Your task to perform on an android device: turn notification dots on Image 0: 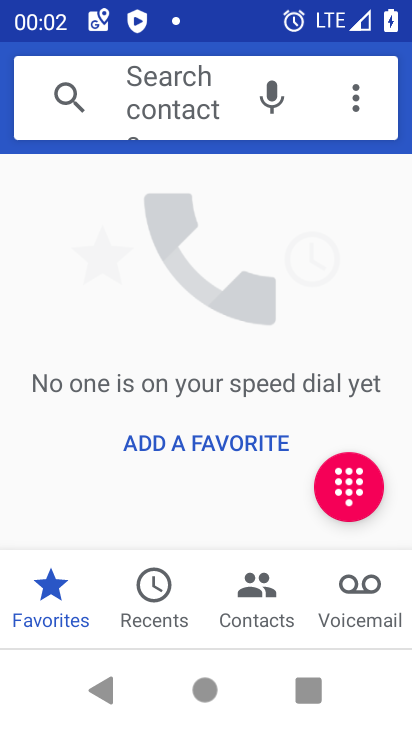
Step 0: press home button
Your task to perform on an android device: turn notification dots on Image 1: 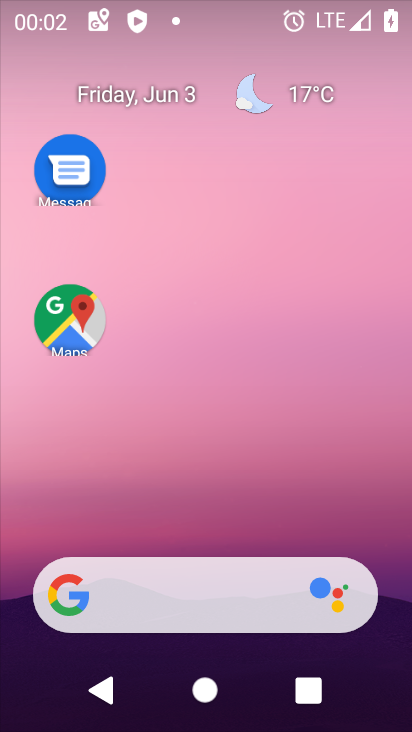
Step 1: drag from (252, 522) to (395, 1)
Your task to perform on an android device: turn notification dots on Image 2: 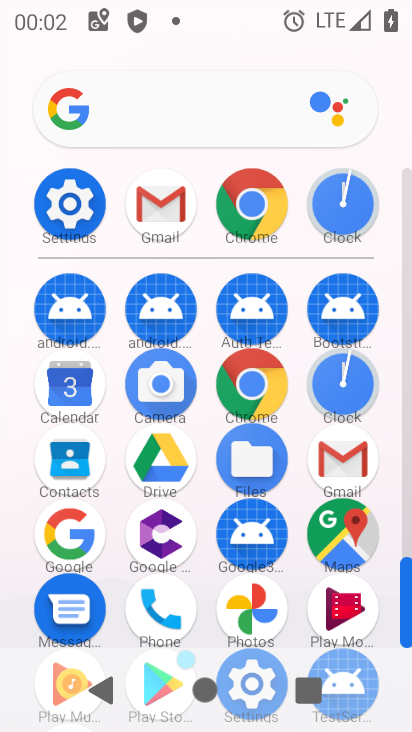
Step 2: drag from (409, 610) to (350, 698)
Your task to perform on an android device: turn notification dots on Image 3: 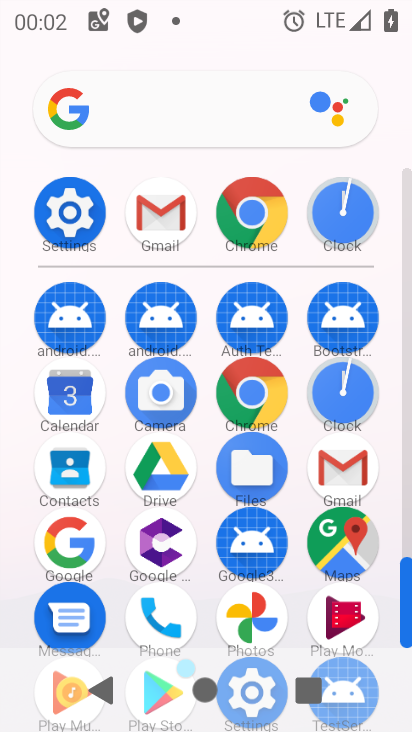
Step 3: drag from (350, 698) to (349, 304)
Your task to perform on an android device: turn notification dots on Image 4: 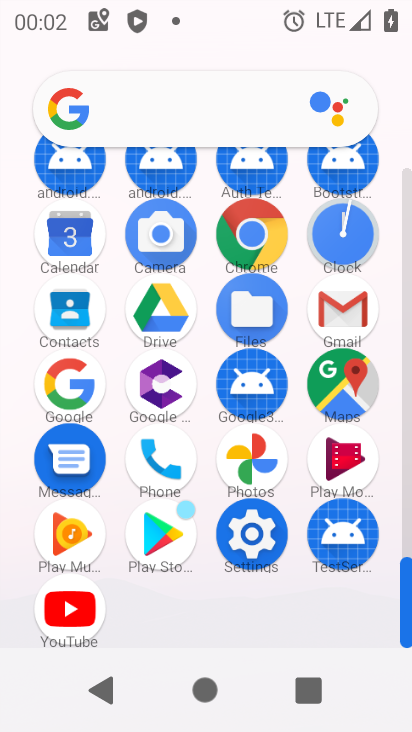
Step 4: click (228, 546)
Your task to perform on an android device: turn notification dots on Image 5: 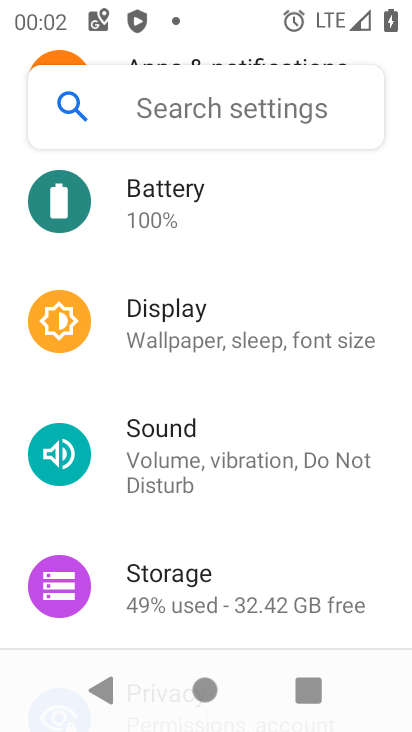
Step 5: drag from (140, 464) to (255, 159)
Your task to perform on an android device: turn notification dots on Image 6: 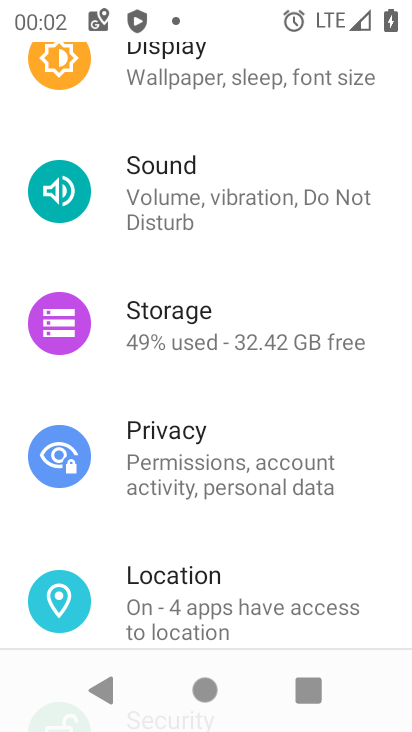
Step 6: drag from (265, 477) to (362, 193)
Your task to perform on an android device: turn notification dots on Image 7: 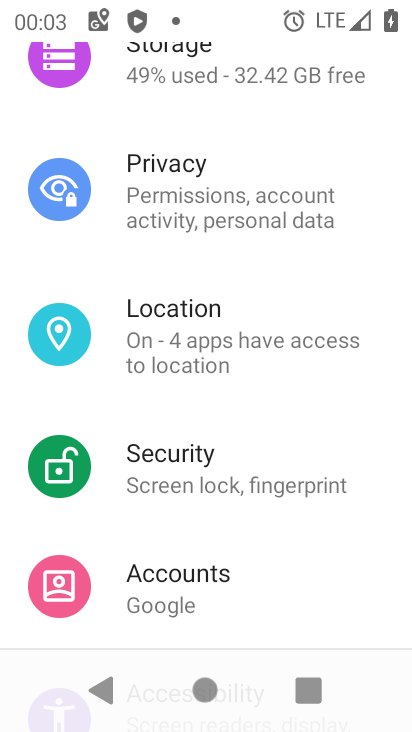
Step 7: drag from (235, 184) to (283, 595)
Your task to perform on an android device: turn notification dots on Image 8: 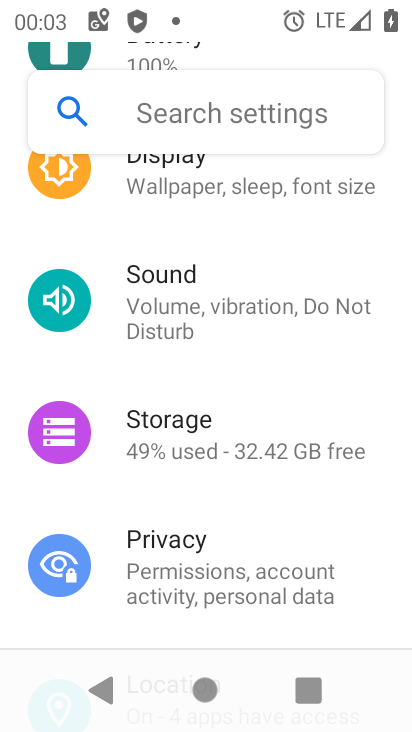
Step 8: drag from (267, 320) to (279, 699)
Your task to perform on an android device: turn notification dots on Image 9: 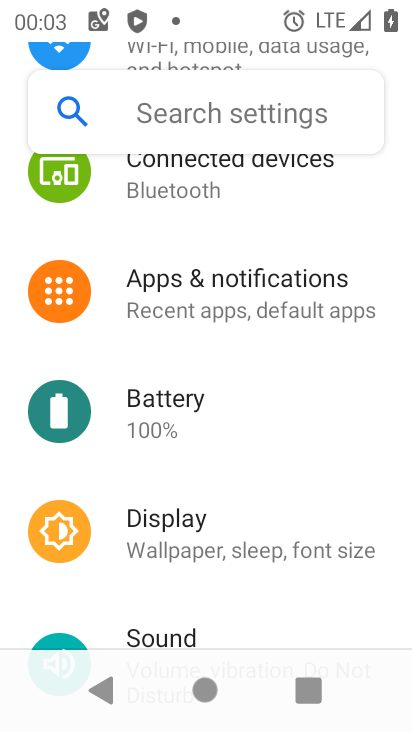
Step 9: click (256, 283)
Your task to perform on an android device: turn notification dots on Image 10: 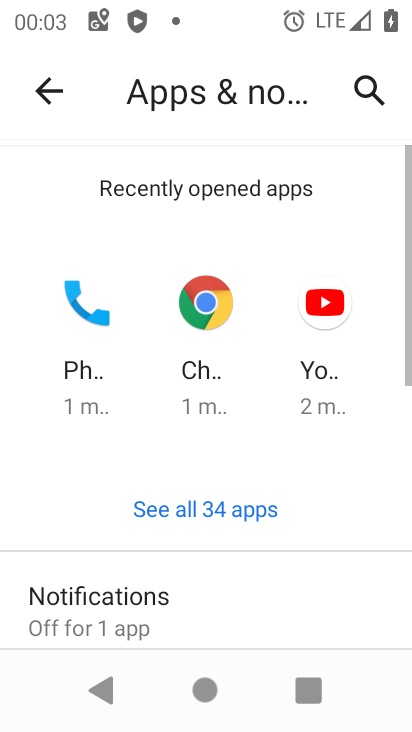
Step 10: click (60, 610)
Your task to perform on an android device: turn notification dots on Image 11: 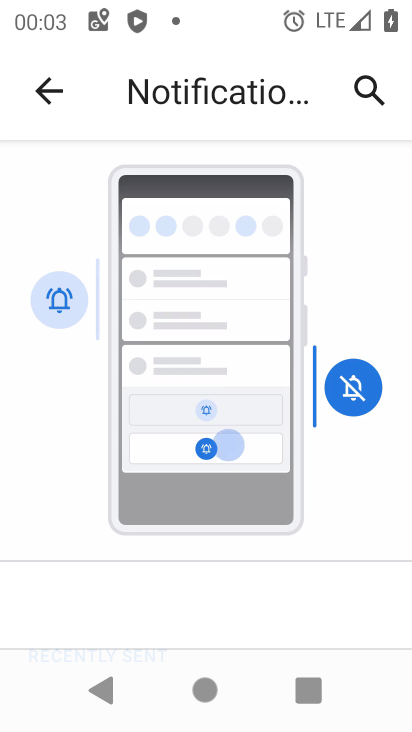
Step 11: drag from (194, 540) to (254, 108)
Your task to perform on an android device: turn notification dots on Image 12: 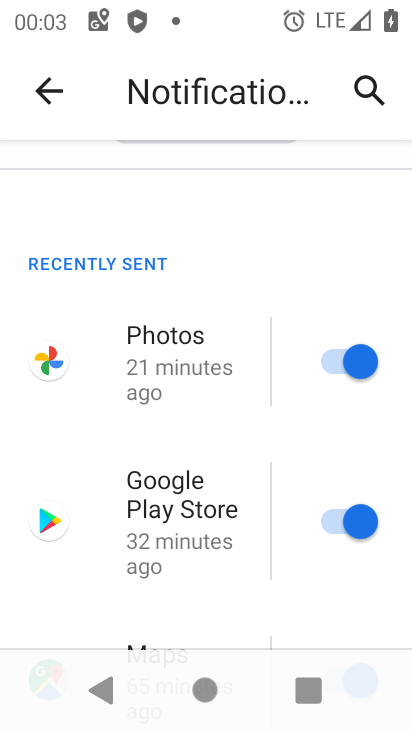
Step 12: drag from (235, 497) to (232, 151)
Your task to perform on an android device: turn notification dots on Image 13: 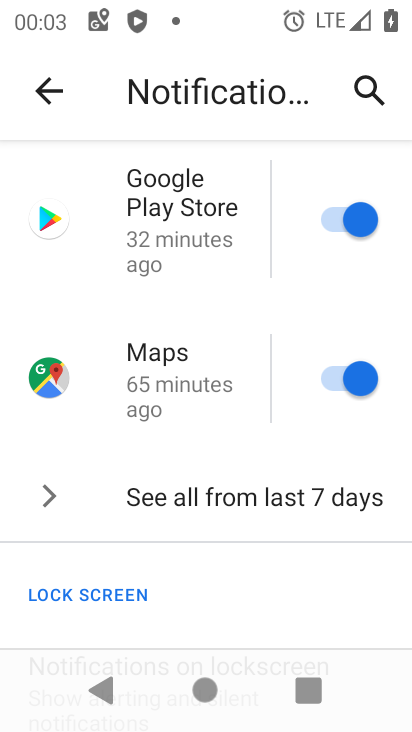
Step 13: drag from (194, 596) to (167, 279)
Your task to perform on an android device: turn notification dots on Image 14: 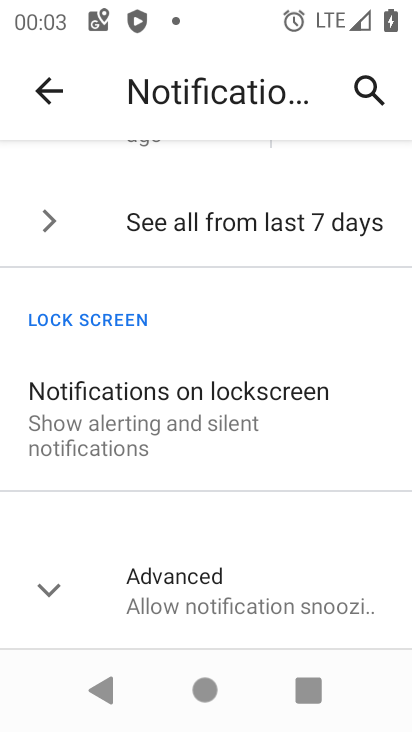
Step 14: click (179, 594)
Your task to perform on an android device: turn notification dots on Image 15: 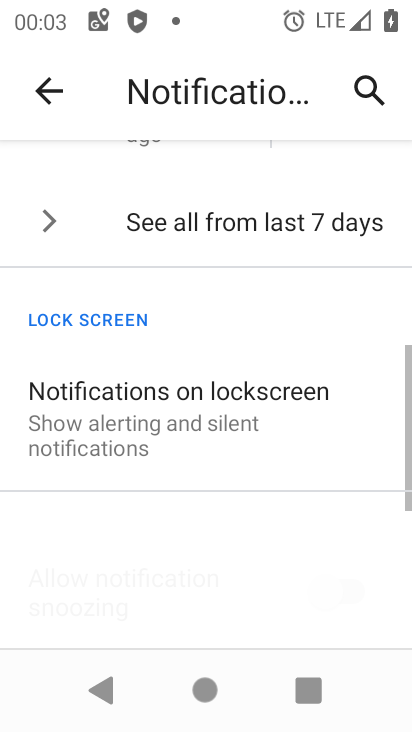
Step 15: task complete